Your task to perform on an android device: Open Chrome and go to the settings page Image 0: 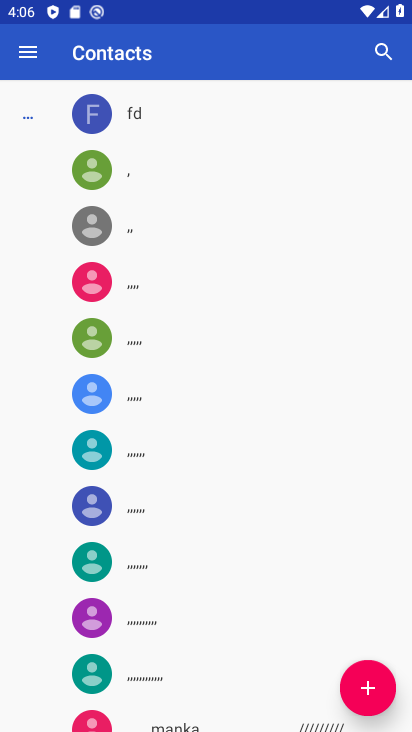
Step 0: press home button
Your task to perform on an android device: Open Chrome and go to the settings page Image 1: 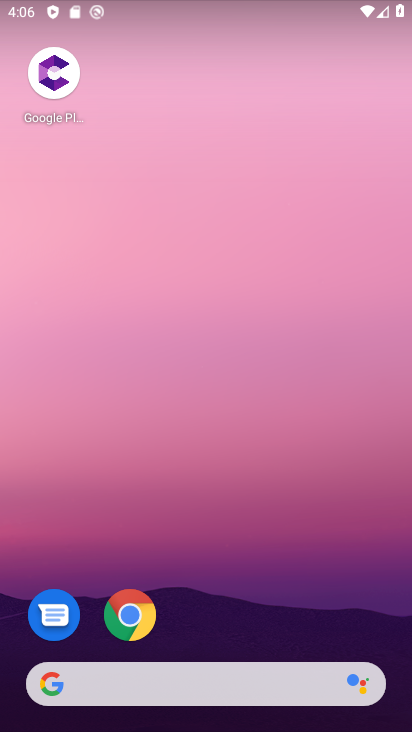
Step 1: click (133, 617)
Your task to perform on an android device: Open Chrome and go to the settings page Image 2: 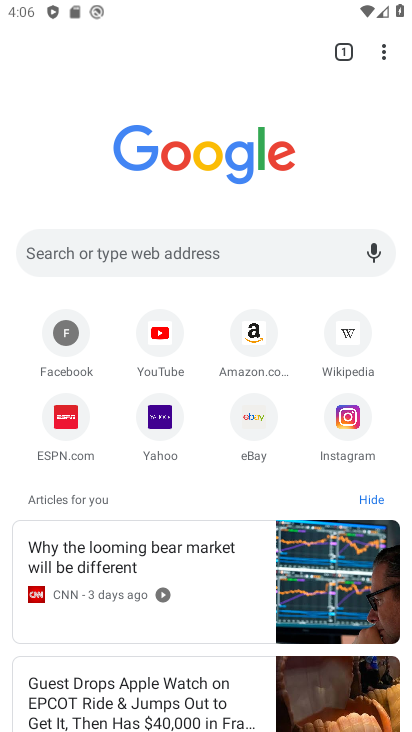
Step 2: click (382, 51)
Your task to perform on an android device: Open Chrome and go to the settings page Image 3: 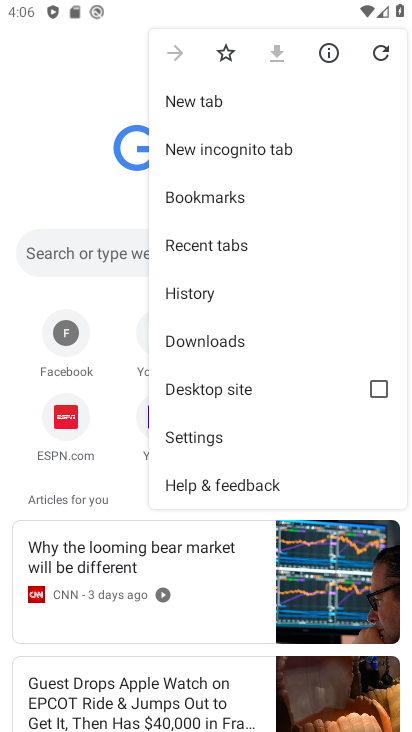
Step 3: click (252, 429)
Your task to perform on an android device: Open Chrome and go to the settings page Image 4: 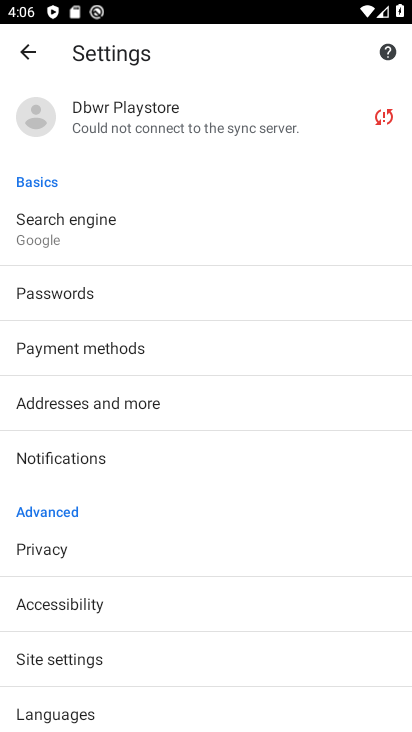
Step 4: task complete